Your task to perform on an android device: turn on priority inbox in the gmail app Image 0: 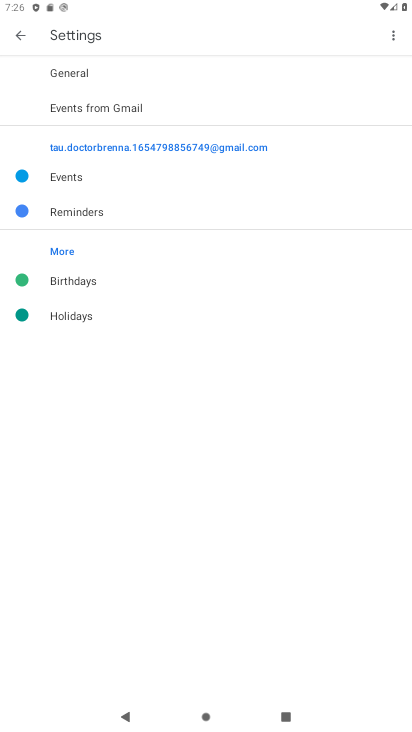
Step 0: press home button
Your task to perform on an android device: turn on priority inbox in the gmail app Image 1: 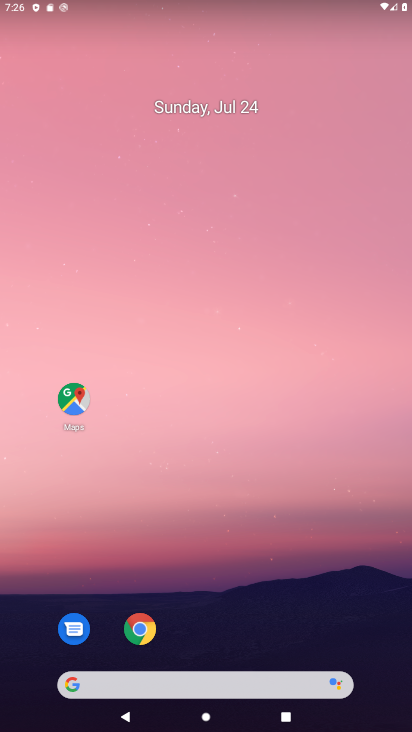
Step 1: drag from (354, 615) to (372, 128)
Your task to perform on an android device: turn on priority inbox in the gmail app Image 2: 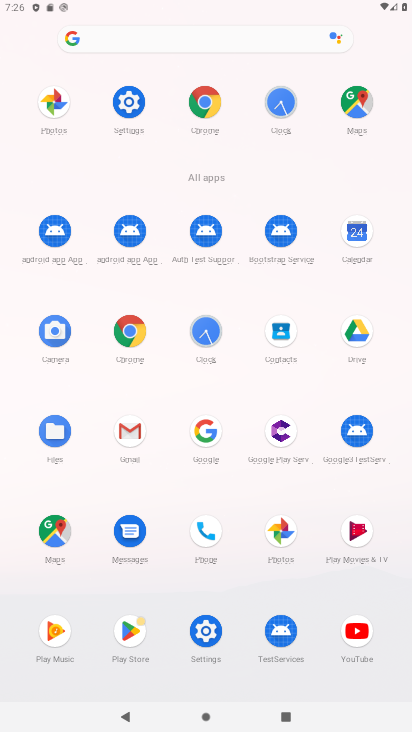
Step 2: click (129, 440)
Your task to perform on an android device: turn on priority inbox in the gmail app Image 3: 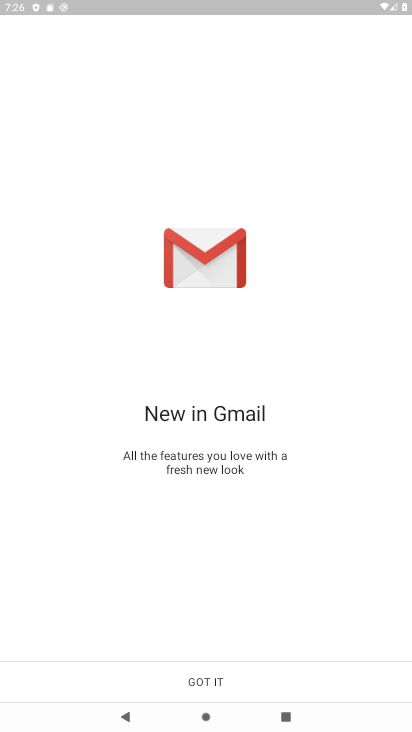
Step 3: click (208, 686)
Your task to perform on an android device: turn on priority inbox in the gmail app Image 4: 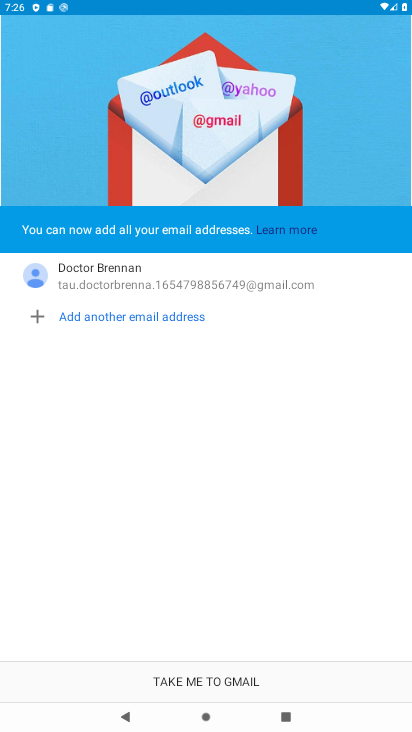
Step 4: click (208, 686)
Your task to perform on an android device: turn on priority inbox in the gmail app Image 5: 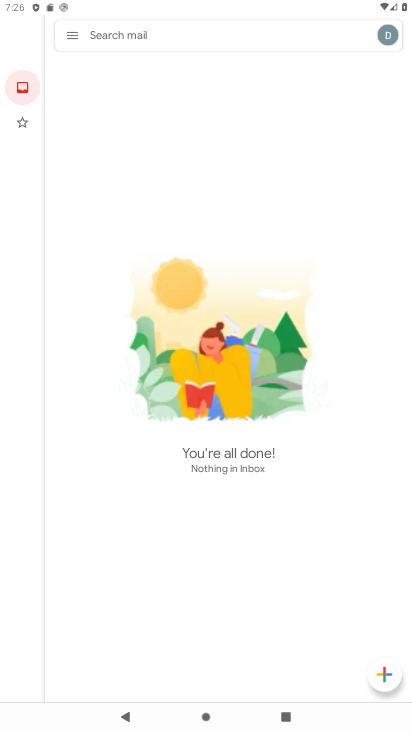
Step 5: click (68, 31)
Your task to perform on an android device: turn on priority inbox in the gmail app Image 6: 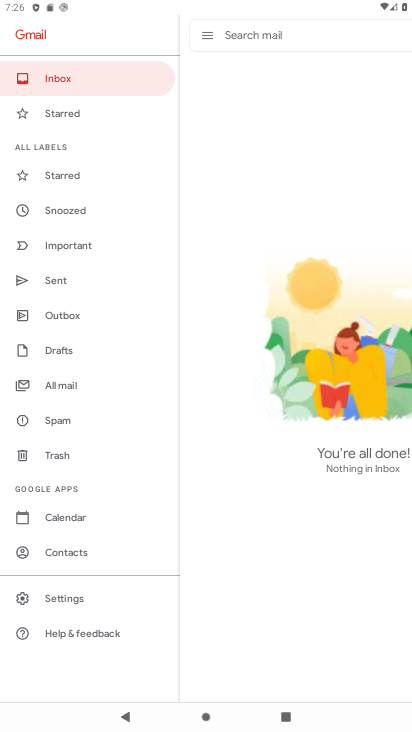
Step 6: click (104, 597)
Your task to perform on an android device: turn on priority inbox in the gmail app Image 7: 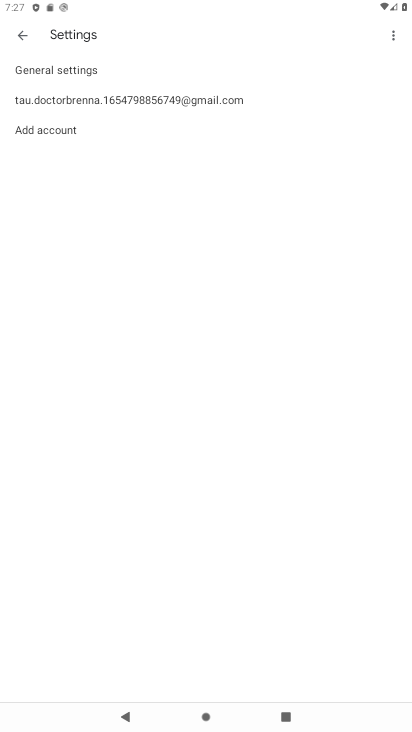
Step 7: click (230, 96)
Your task to perform on an android device: turn on priority inbox in the gmail app Image 8: 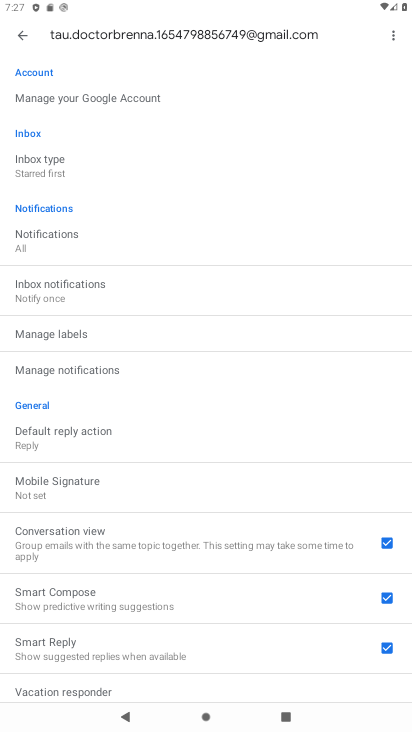
Step 8: drag from (263, 392) to (277, 230)
Your task to perform on an android device: turn on priority inbox in the gmail app Image 9: 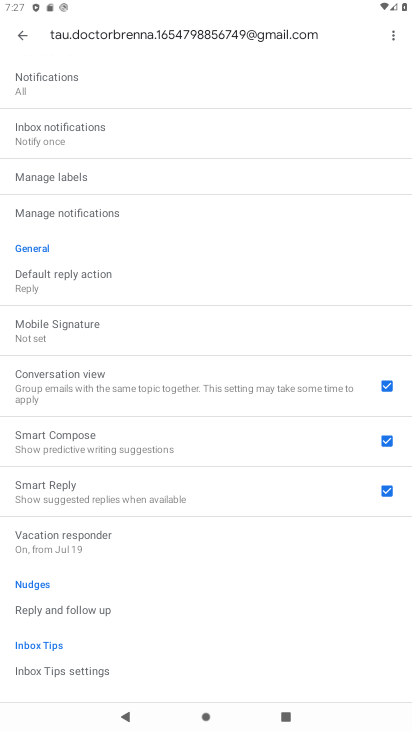
Step 9: drag from (280, 435) to (284, 321)
Your task to perform on an android device: turn on priority inbox in the gmail app Image 10: 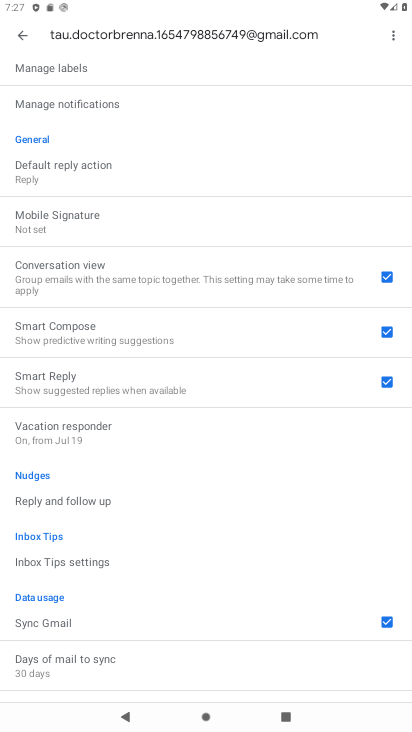
Step 10: drag from (302, 549) to (297, 392)
Your task to perform on an android device: turn on priority inbox in the gmail app Image 11: 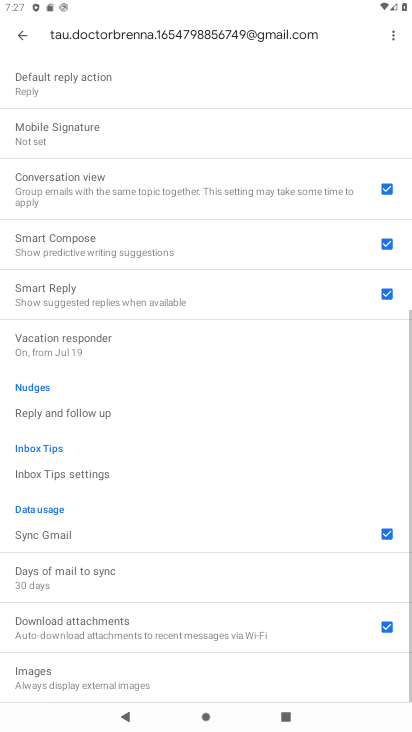
Step 11: drag from (299, 324) to (296, 420)
Your task to perform on an android device: turn on priority inbox in the gmail app Image 12: 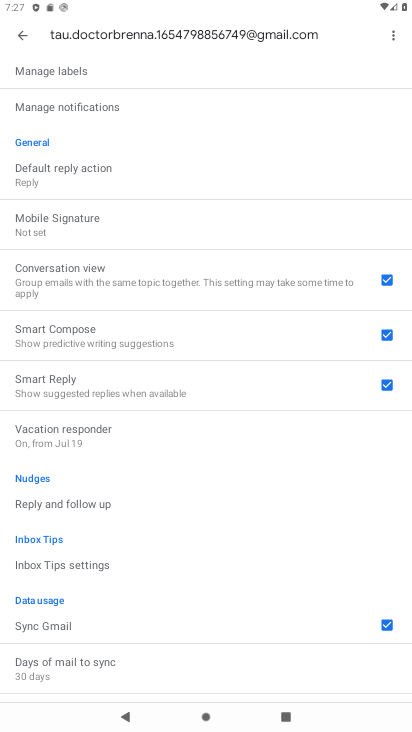
Step 12: drag from (285, 320) to (283, 416)
Your task to perform on an android device: turn on priority inbox in the gmail app Image 13: 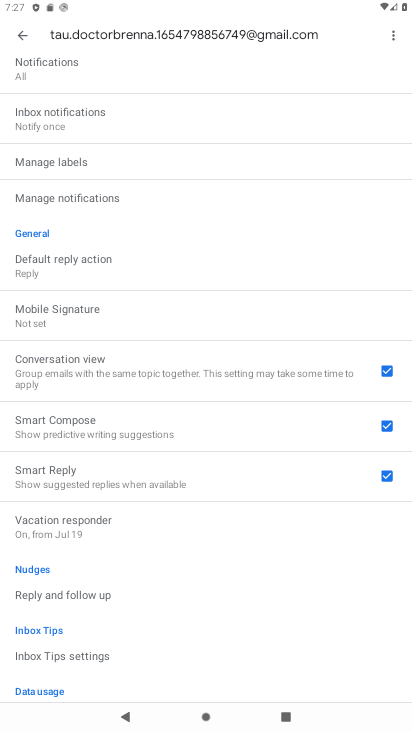
Step 13: drag from (282, 286) to (281, 397)
Your task to perform on an android device: turn on priority inbox in the gmail app Image 14: 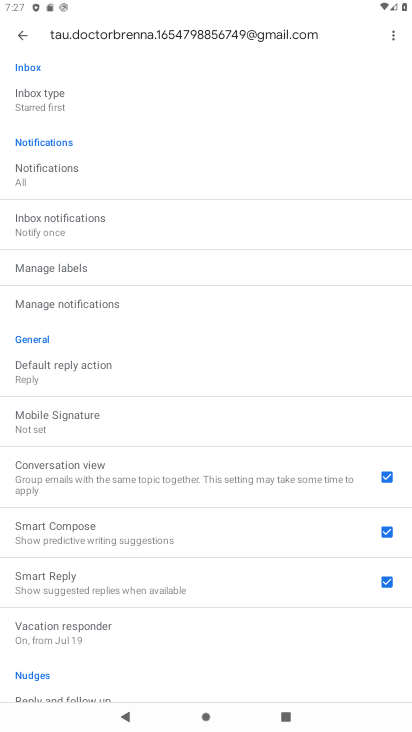
Step 14: drag from (298, 256) to (302, 384)
Your task to perform on an android device: turn on priority inbox in the gmail app Image 15: 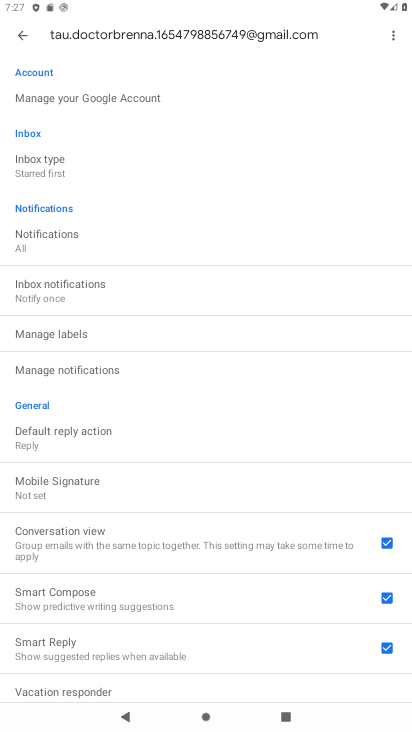
Step 15: drag from (267, 222) to (256, 328)
Your task to perform on an android device: turn on priority inbox in the gmail app Image 16: 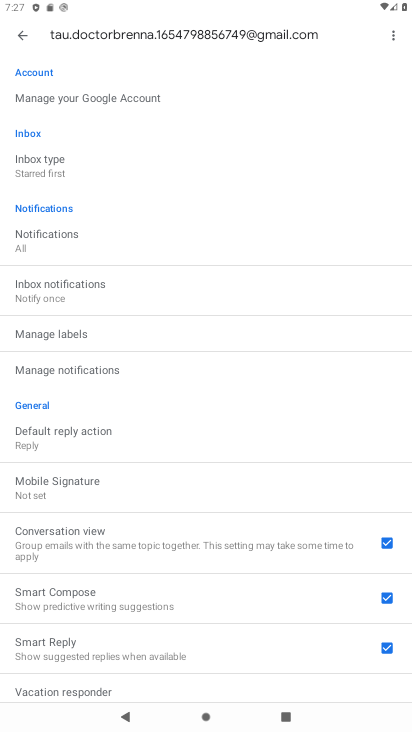
Step 16: click (72, 173)
Your task to perform on an android device: turn on priority inbox in the gmail app Image 17: 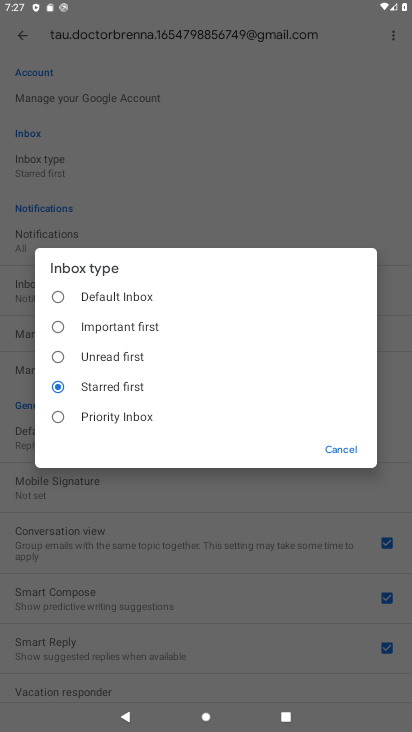
Step 17: click (128, 425)
Your task to perform on an android device: turn on priority inbox in the gmail app Image 18: 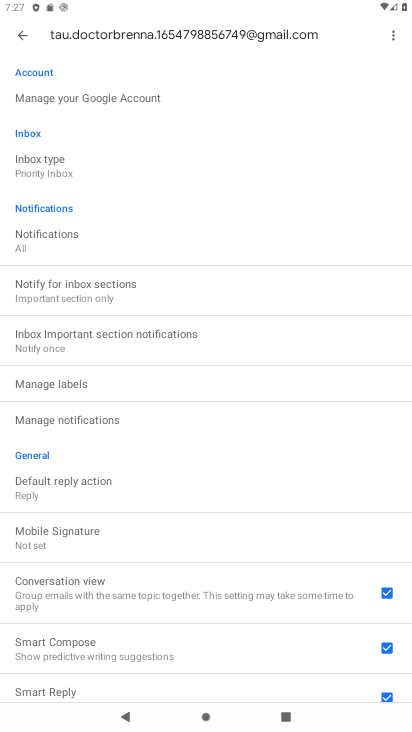
Step 18: task complete